Your task to perform on an android device: Find coffee shops on Maps Image 0: 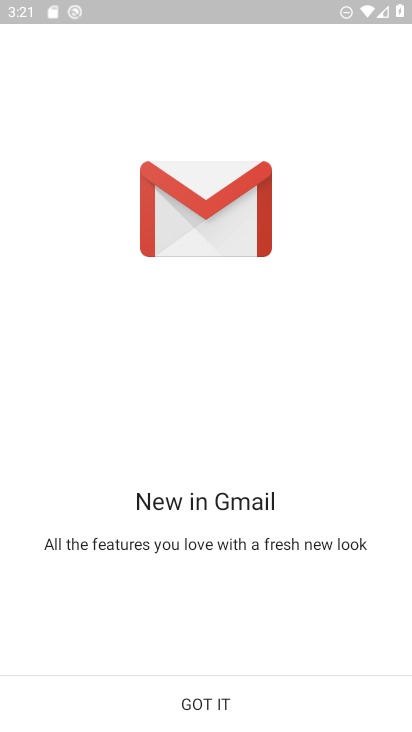
Step 0: press home button
Your task to perform on an android device: Find coffee shops on Maps Image 1: 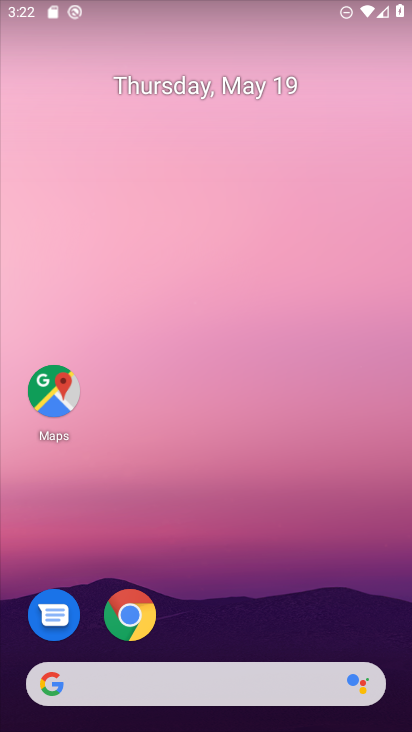
Step 1: click (52, 375)
Your task to perform on an android device: Find coffee shops on Maps Image 2: 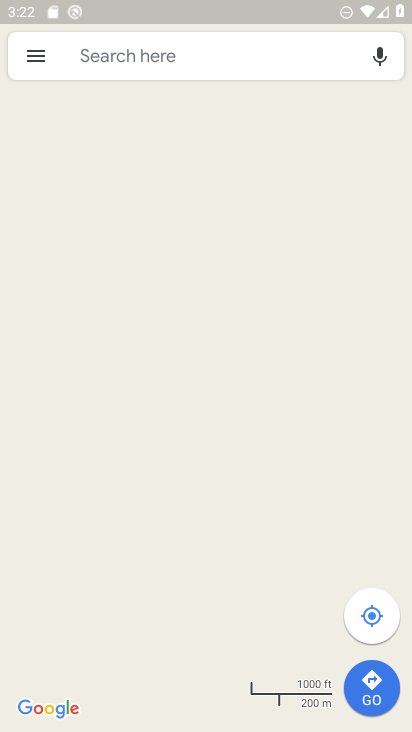
Step 2: click (157, 57)
Your task to perform on an android device: Find coffee shops on Maps Image 3: 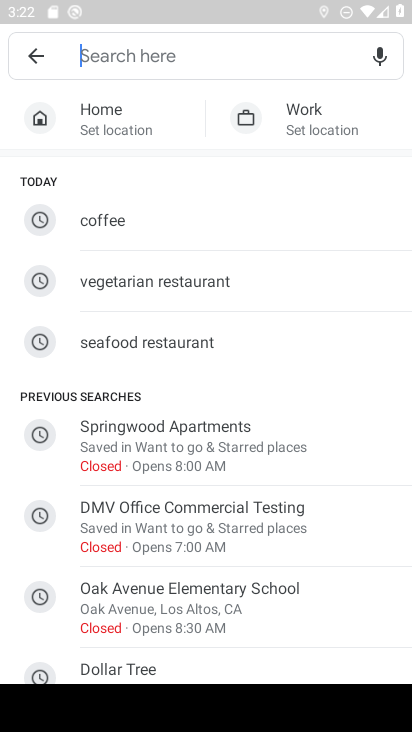
Step 3: click (149, 210)
Your task to perform on an android device: Find coffee shops on Maps Image 4: 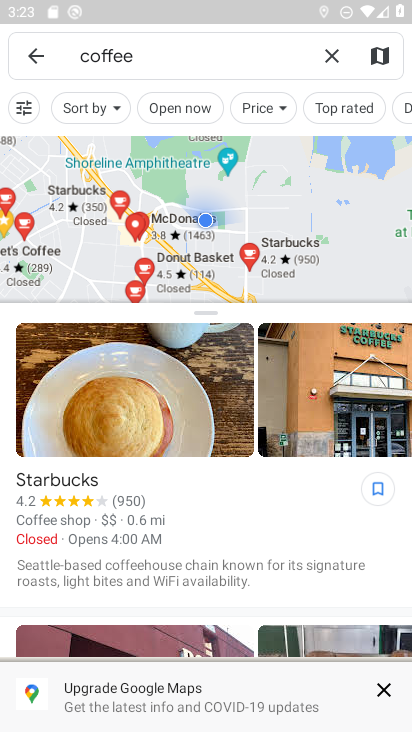
Step 4: task complete